Your task to perform on an android device: View the shopping cart on amazon. Image 0: 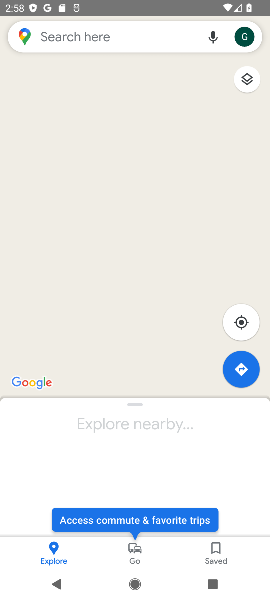
Step 0: press home button
Your task to perform on an android device: View the shopping cart on amazon. Image 1: 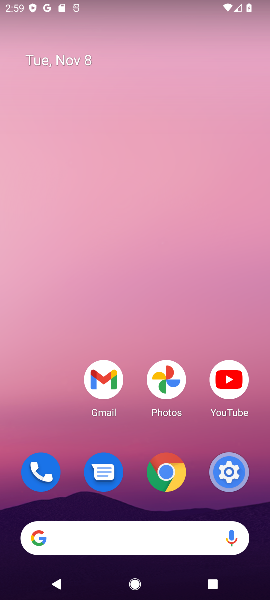
Step 1: click (147, 534)
Your task to perform on an android device: View the shopping cart on amazon. Image 2: 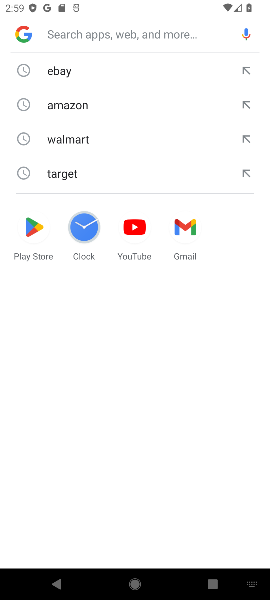
Step 2: click (53, 112)
Your task to perform on an android device: View the shopping cart on amazon. Image 3: 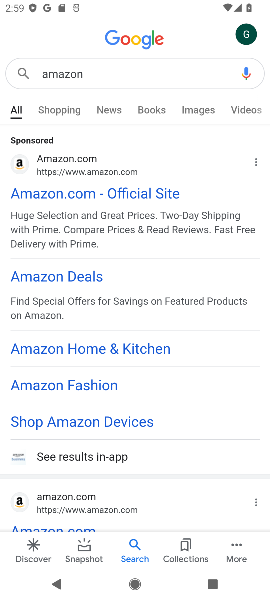
Step 3: click (140, 201)
Your task to perform on an android device: View the shopping cart on amazon. Image 4: 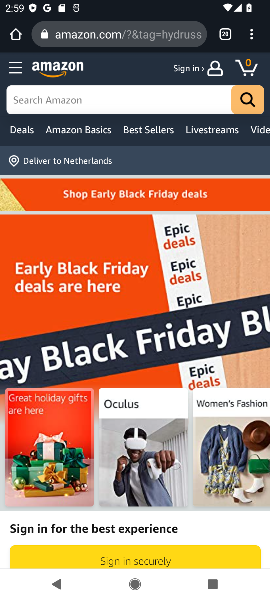
Step 4: click (241, 73)
Your task to perform on an android device: View the shopping cart on amazon. Image 5: 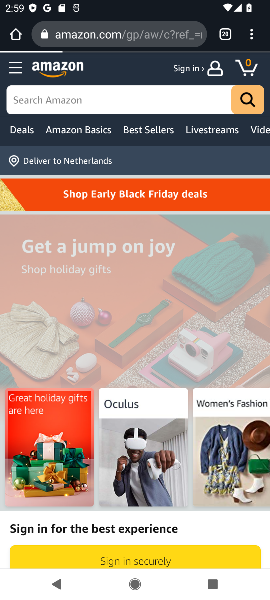
Step 5: task complete